Your task to perform on an android device: What's the weather going to be this weekend? Image 0: 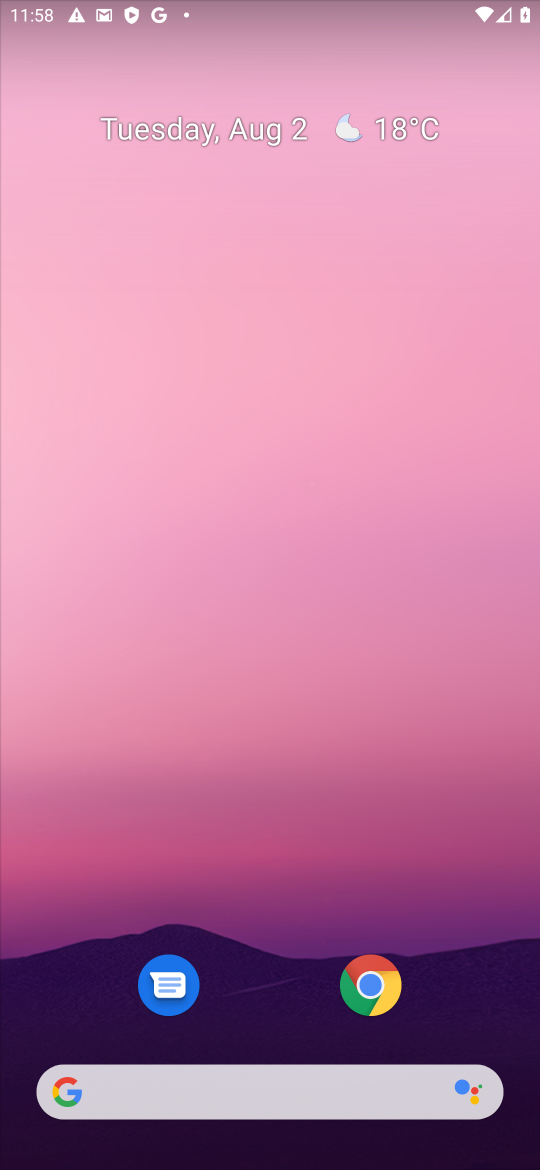
Step 0: click (237, 1065)
Your task to perform on an android device: What's the weather going to be this weekend? Image 1: 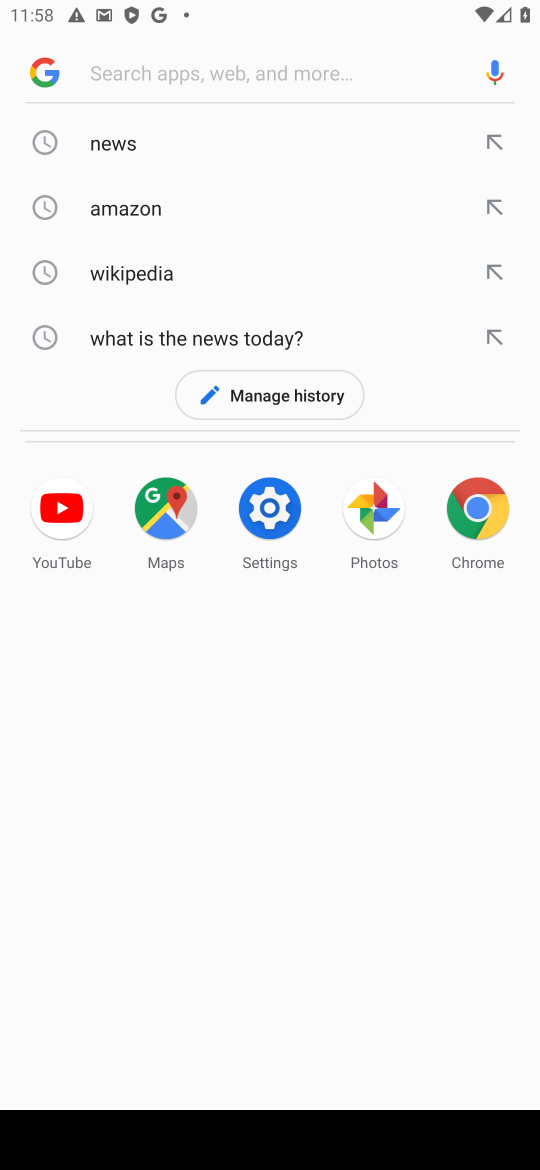
Step 1: type "weather"
Your task to perform on an android device: What's the weather going to be this weekend? Image 2: 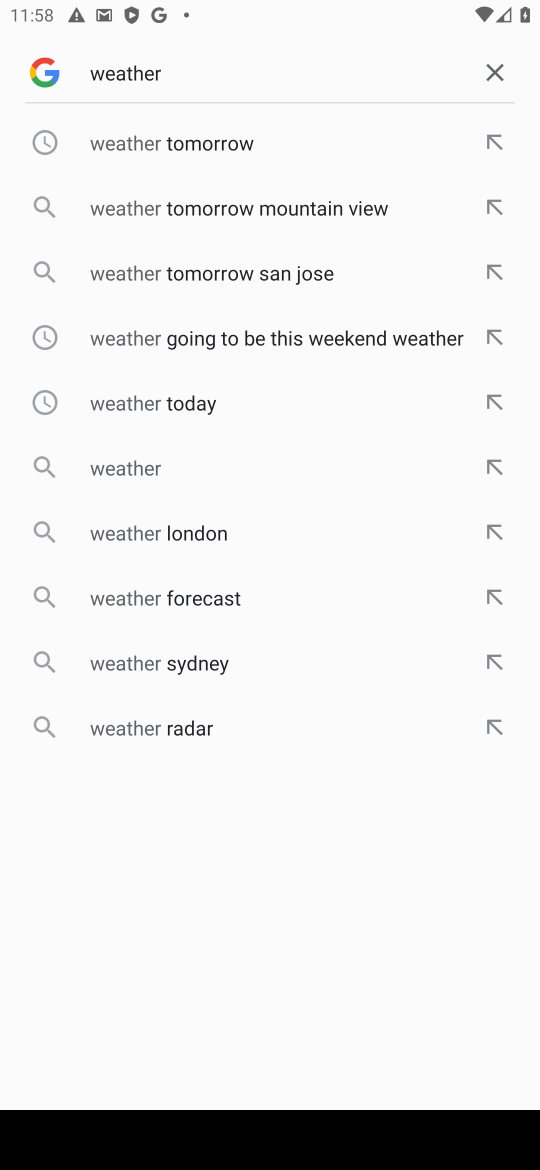
Step 2: click (260, 133)
Your task to perform on an android device: What's the weather going to be this weekend? Image 3: 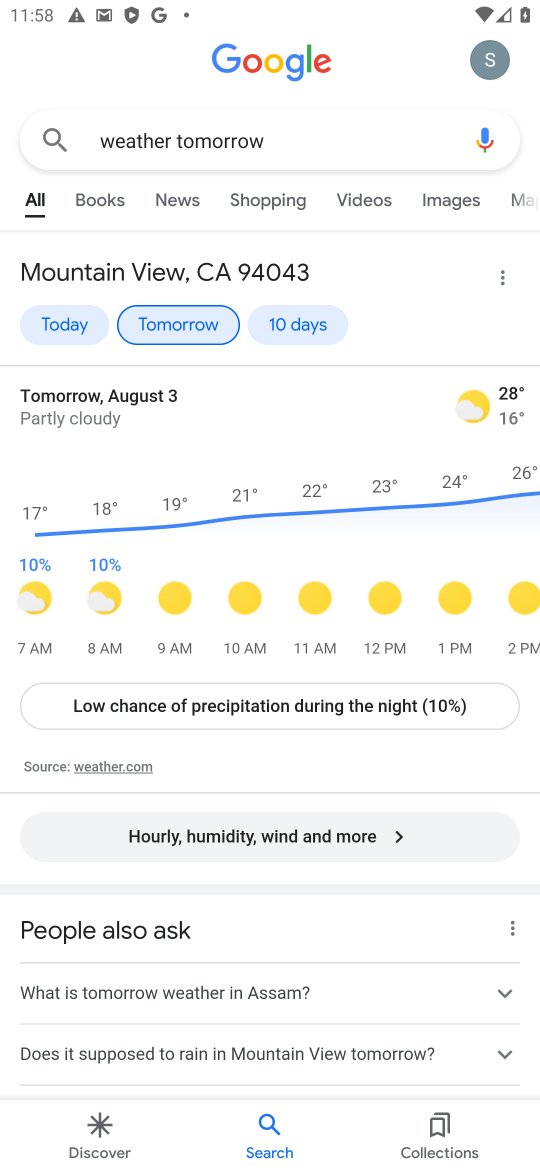
Step 3: click (307, 306)
Your task to perform on an android device: What's the weather going to be this weekend? Image 4: 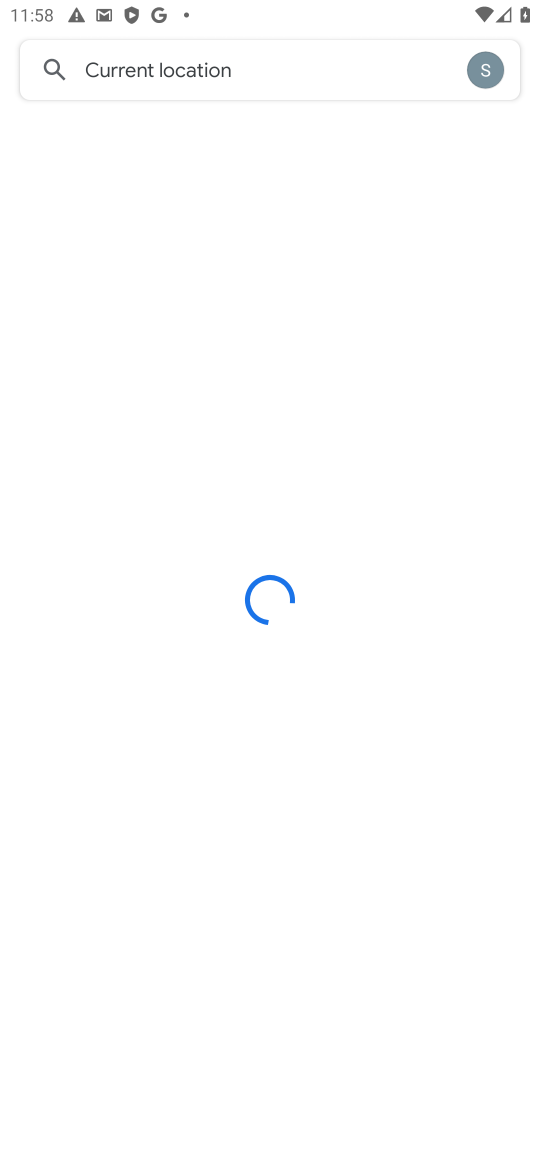
Step 4: task complete